Your task to perform on an android device: Open Maps and search for coffee Image 0: 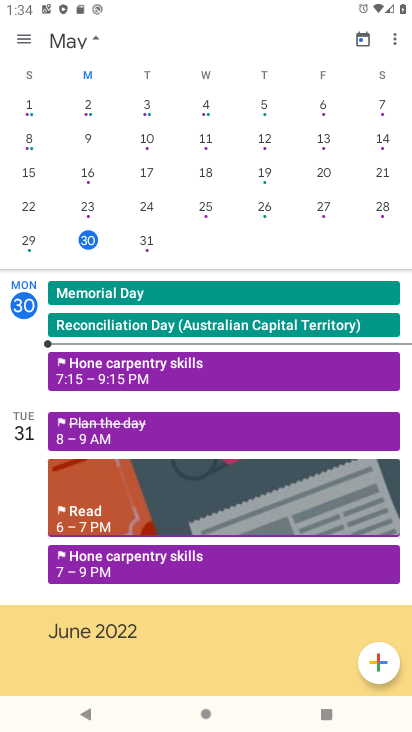
Step 0: press home button
Your task to perform on an android device: Open Maps and search for coffee Image 1: 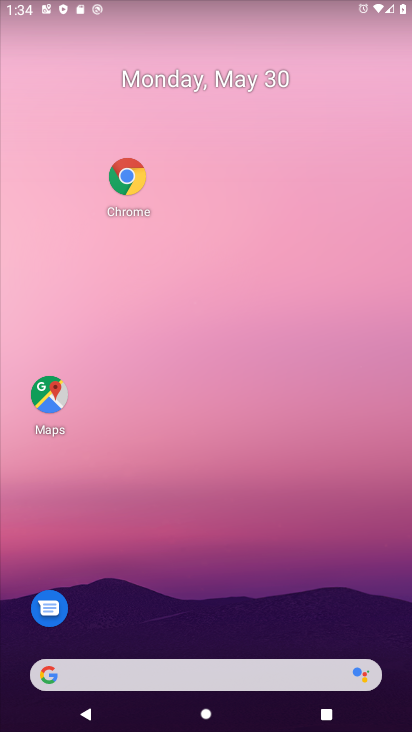
Step 1: click (56, 400)
Your task to perform on an android device: Open Maps and search for coffee Image 2: 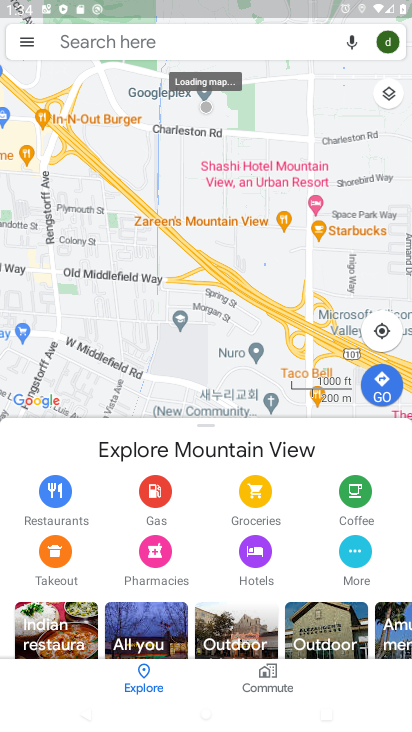
Step 2: click (161, 36)
Your task to perform on an android device: Open Maps and search for coffee Image 3: 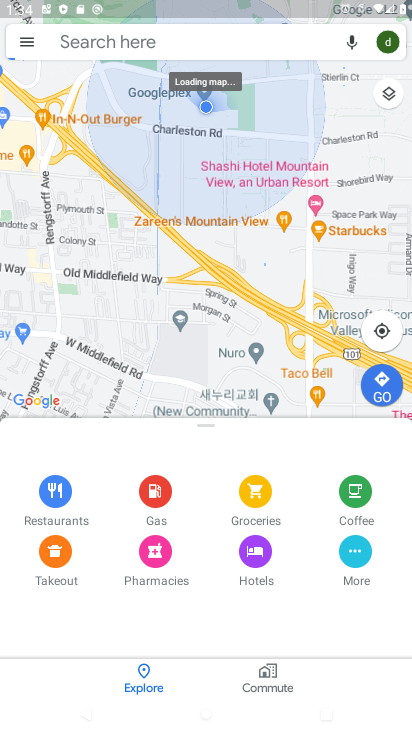
Step 3: click (161, 36)
Your task to perform on an android device: Open Maps and search for coffee Image 4: 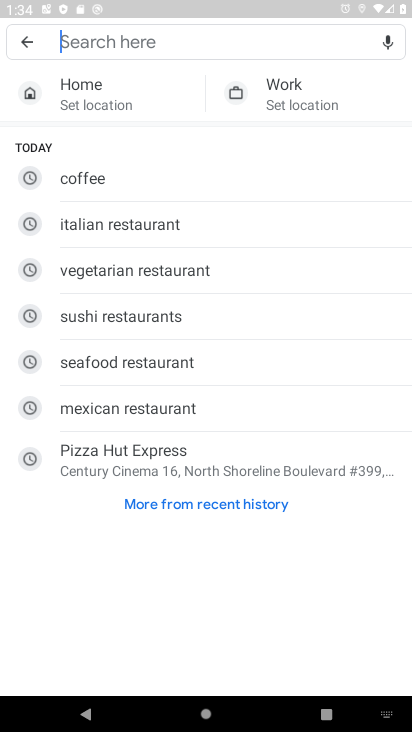
Step 4: click (103, 181)
Your task to perform on an android device: Open Maps and search for coffee Image 5: 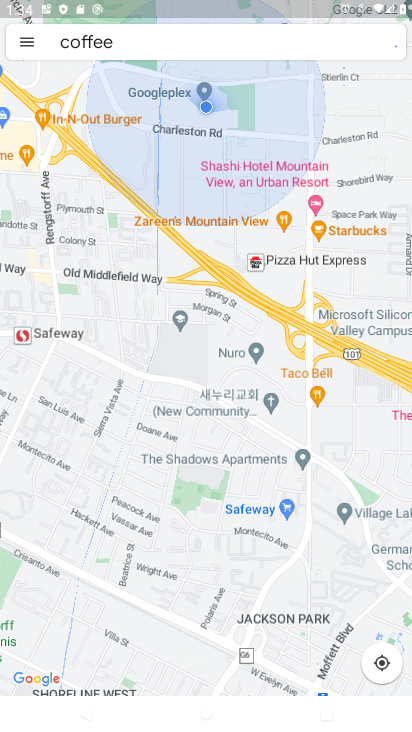
Step 5: click (103, 181)
Your task to perform on an android device: Open Maps and search for coffee Image 6: 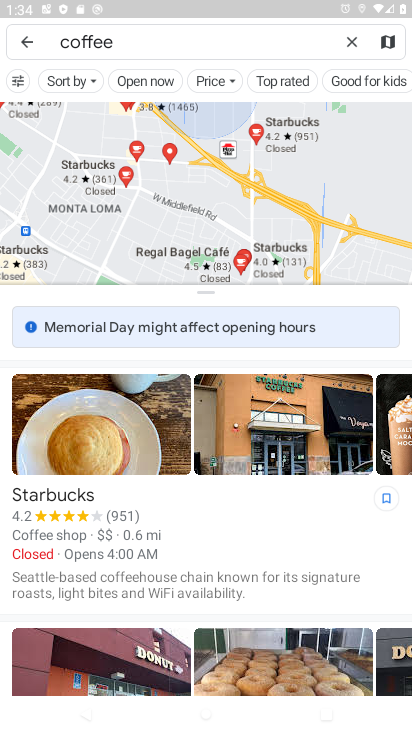
Step 6: task complete